Your task to perform on an android device: Open CNN.com Image 0: 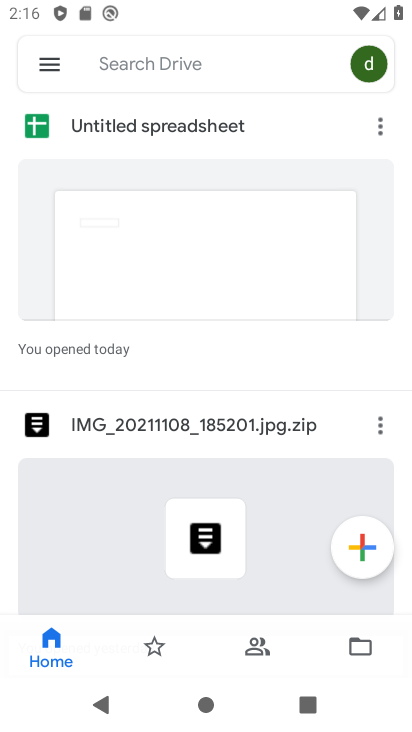
Step 0: press home button
Your task to perform on an android device: Open CNN.com Image 1: 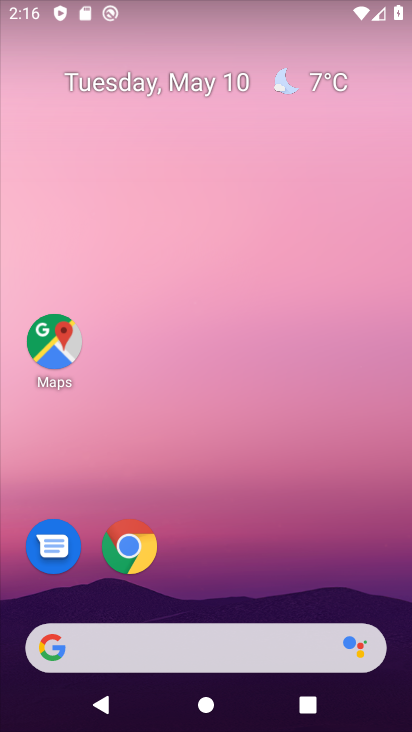
Step 1: click (137, 554)
Your task to perform on an android device: Open CNN.com Image 2: 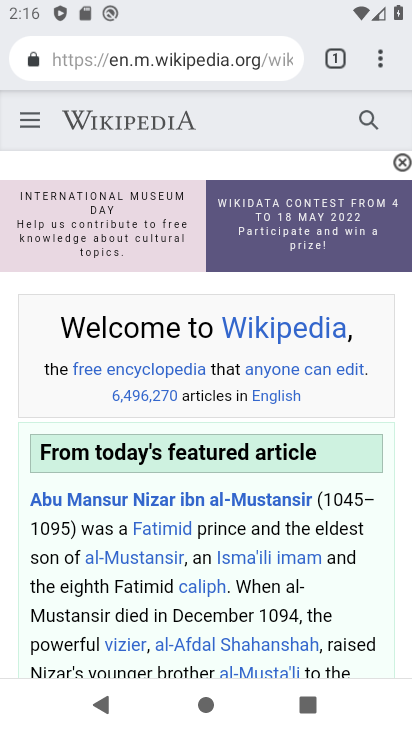
Step 2: click (206, 65)
Your task to perform on an android device: Open CNN.com Image 3: 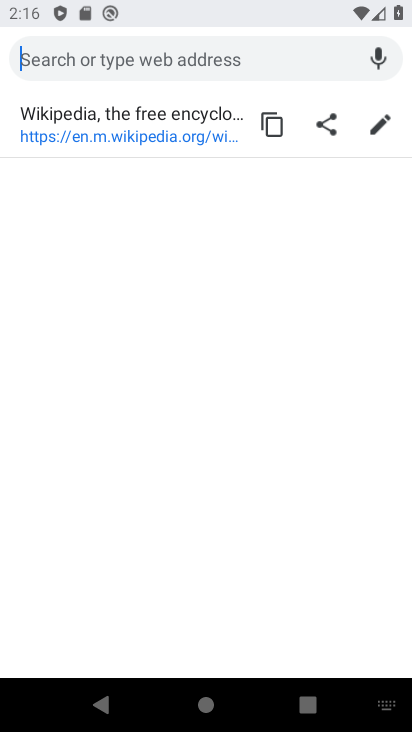
Step 3: type "CNN.com"
Your task to perform on an android device: Open CNN.com Image 4: 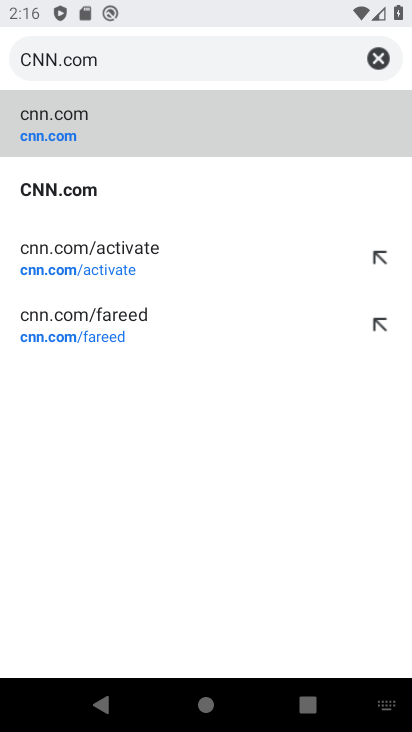
Step 4: click (65, 126)
Your task to perform on an android device: Open CNN.com Image 5: 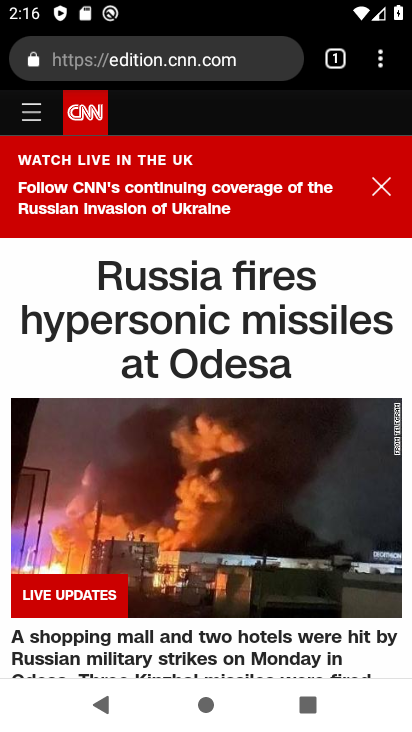
Step 5: task complete